Your task to perform on an android device: delete browsing data in the chrome app Image 0: 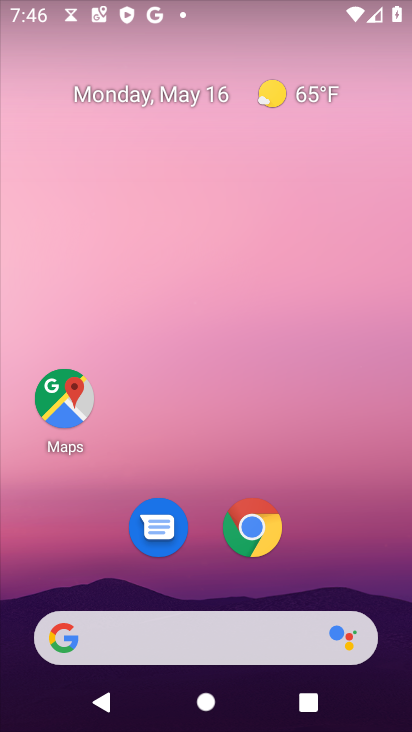
Step 0: click (257, 521)
Your task to perform on an android device: delete browsing data in the chrome app Image 1: 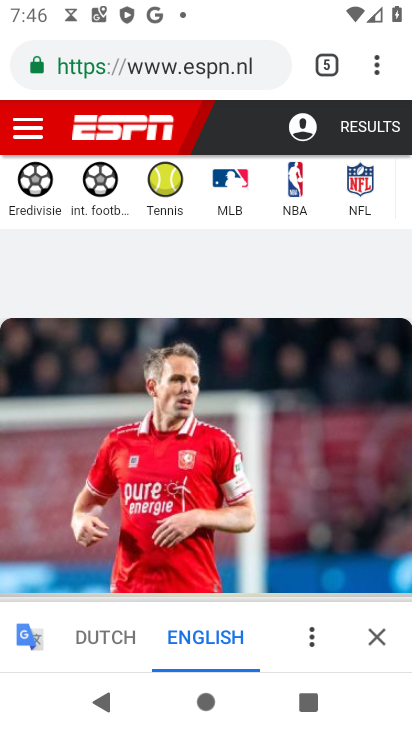
Step 1: click (381, 641)
Your task to perform on an android device: delete browsing data in the chrome app Image 2: 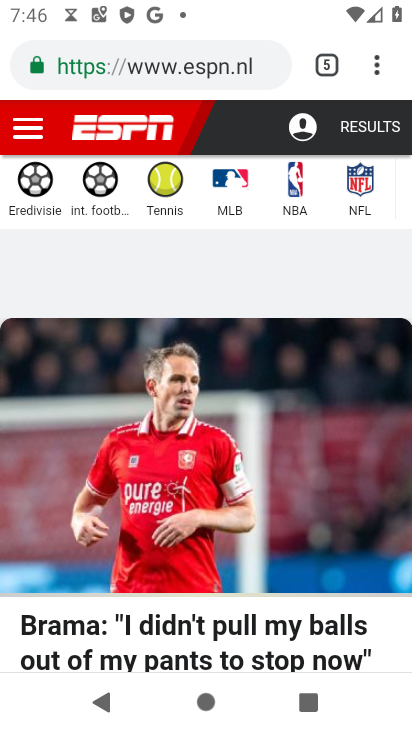
Step 2: click (371, 64)
Your task to perform on an android device: delete browsing data in the chrome app Image 3: 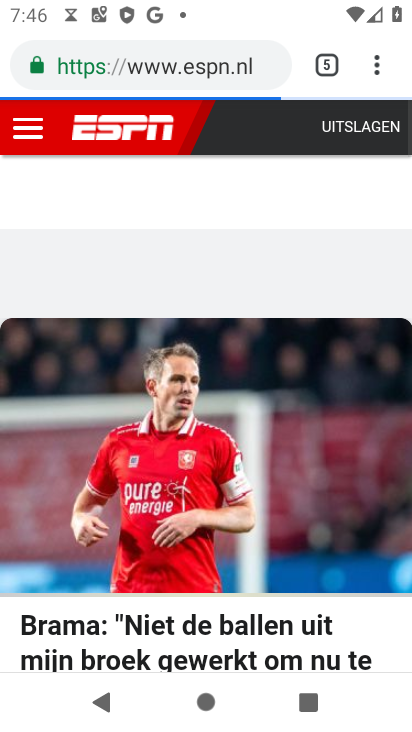
Step 3: click (352, 57)
Your task to perform on an android device: delete browsing data in the chrome app Image 4: 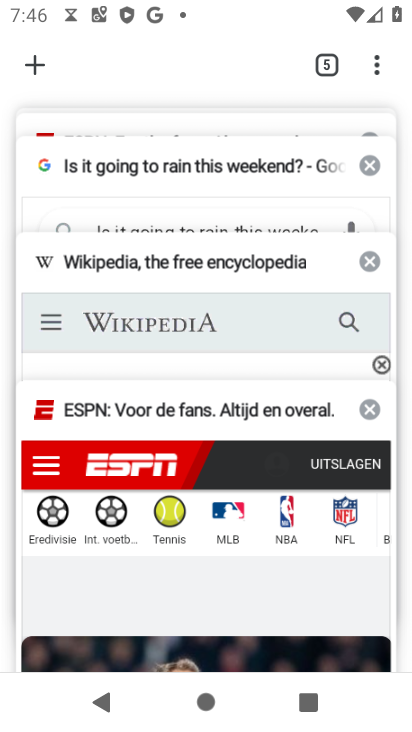
Step 4: click (377, 59)
Your task to perform on an android device: delete browsing data in the chrome app Image 5: 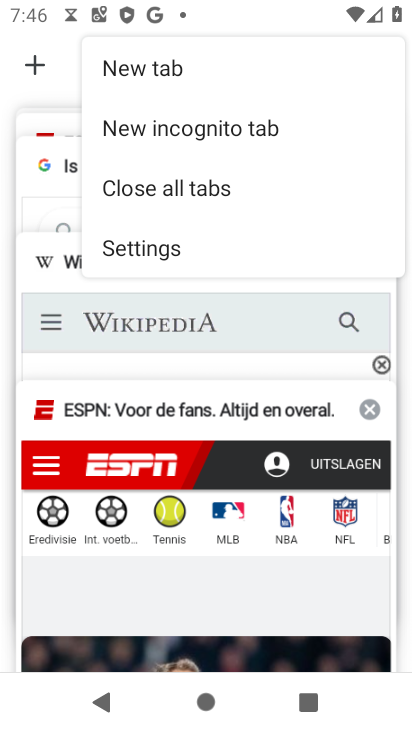
Step 5: click (176, 243)
Your task to perform on an android device: delete browsing data in the chrome app Image 6: 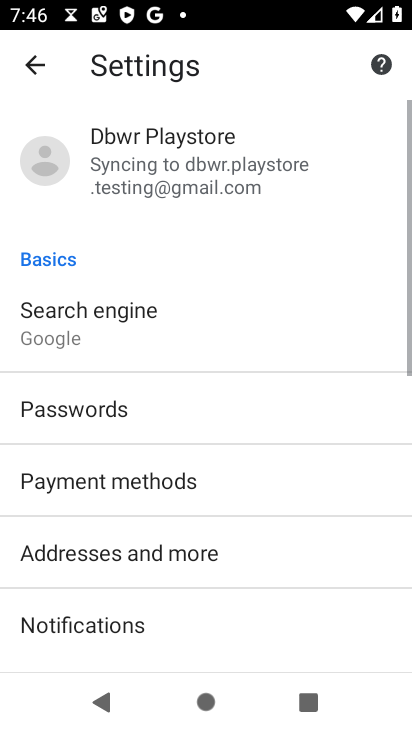
Step 6: drag from (208, 534) to (330, 181)
Your task to perform on an android device: delete browsing data in the chrome app Image 7: 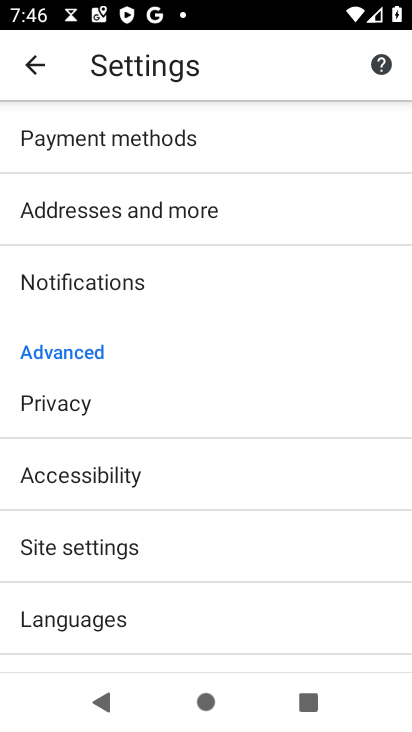
Step 7: drag from (214, 560) to (276, 332)
Your task to perform on an android device: delete browsing data in the chrome app Image 8: 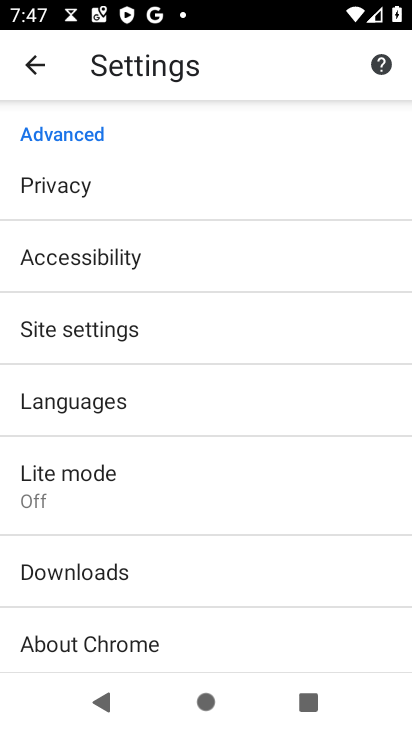
Step 8: press back button
Your task to perform on an android device: delete browsing data in the chrome app Image 9: 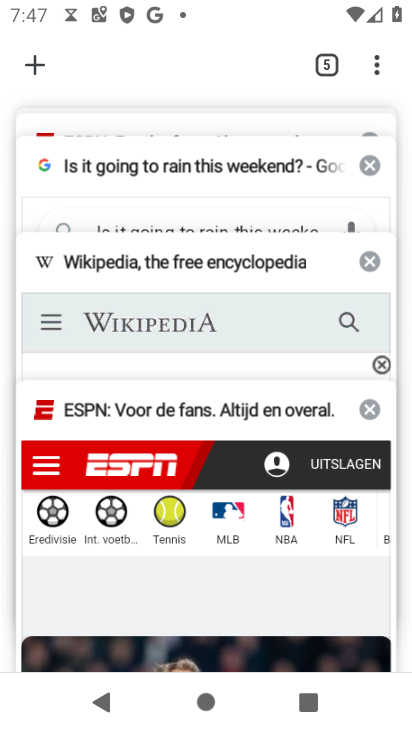
Step 9: click (143, 538)
Your task to perform on an android device: delete browsing data in the chrome app Image 10: 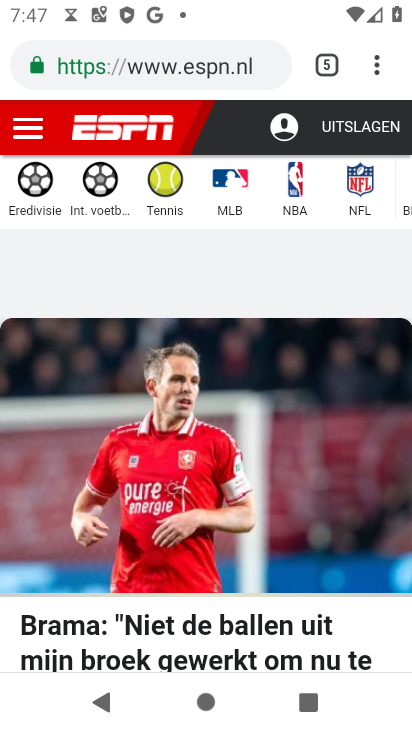
Step 10: click (360, 61)
Your task to perform on an android device: delete browsing data in the chrome app Image 11: 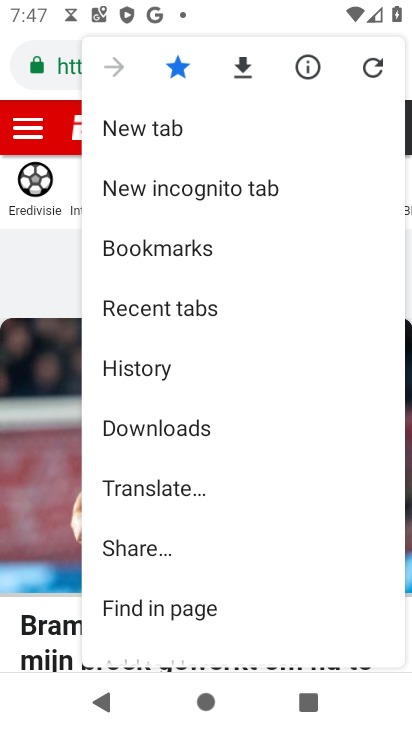
Step 11: click (162, 364)
Your task to perform on an android device: delete browsing data in the chrome app Image 12: 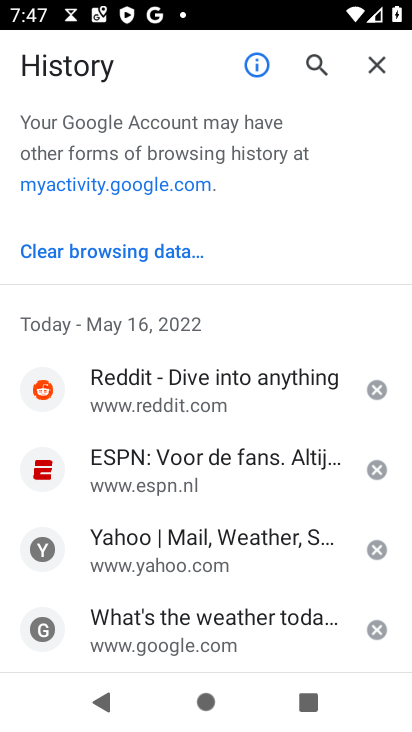
Step 12: click (124, 249)
Your task to perform on an android device: delete browsing data in the chrome app Image 13: 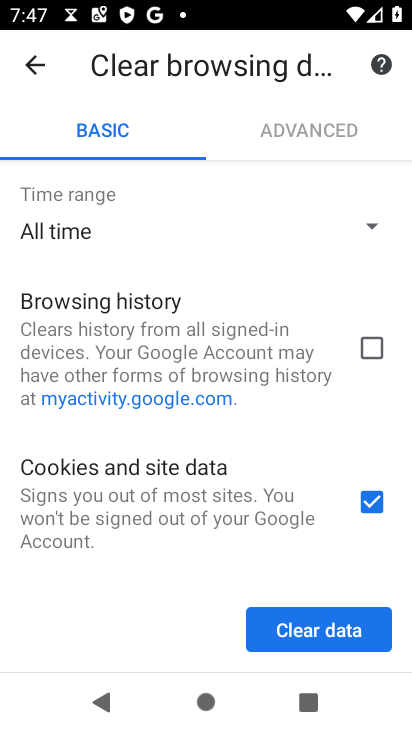
Step 13: click (380, 343)
Your task to perform on an android device: delete browsing data in the chrome app Image 14: 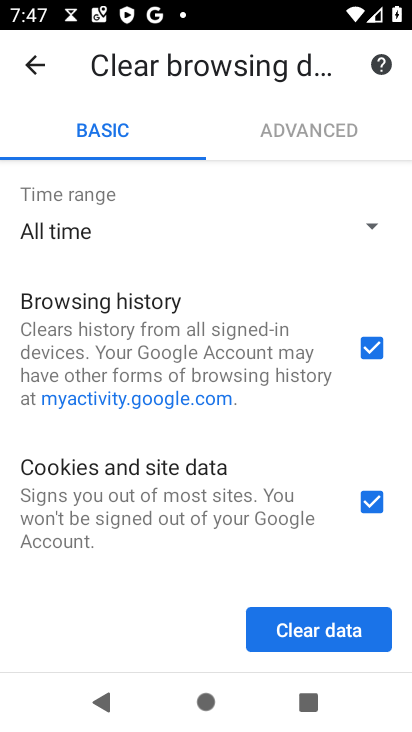
Step 14: click (340, 623)
Your task to perform on an android device: delete browsing data in the chrome app Image 15: 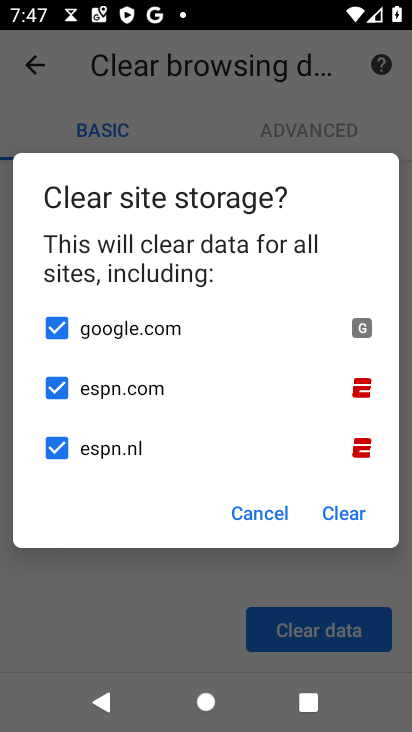
Step 15: click (351, 511)
Your task to perform on an android device: delete browsing data in the chrome app Image 16: 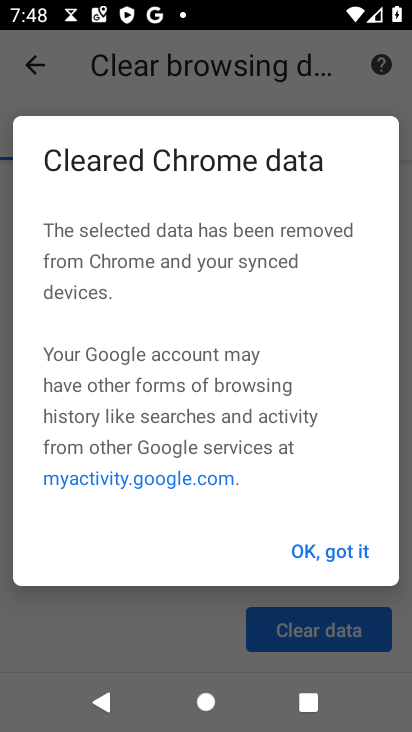
Step 16: click (341, 549)
Your task to perform on an android device: delete browsing data in the chrome app Image 17: 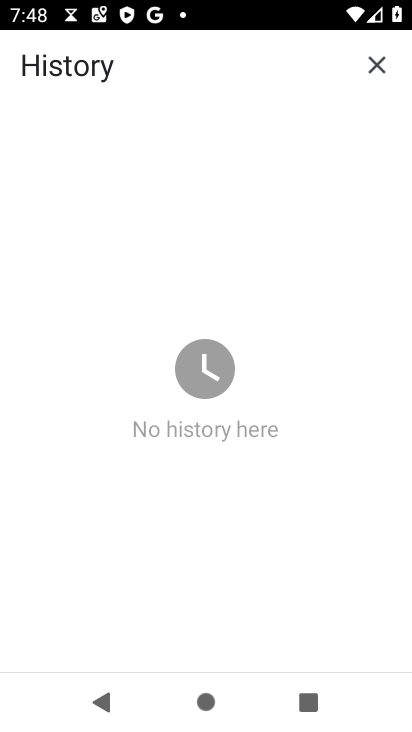
Step 17: task complete